Your task to perform on an android device: Open location settings Image 0: 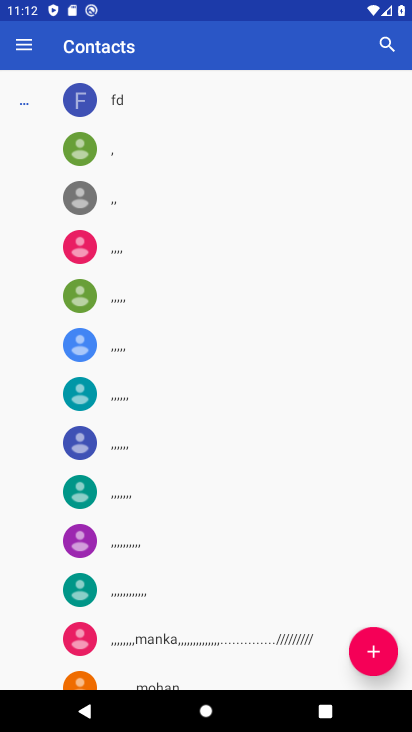
Step 0: press home button
Your task to perform on an android device: Open location settings Image 1: 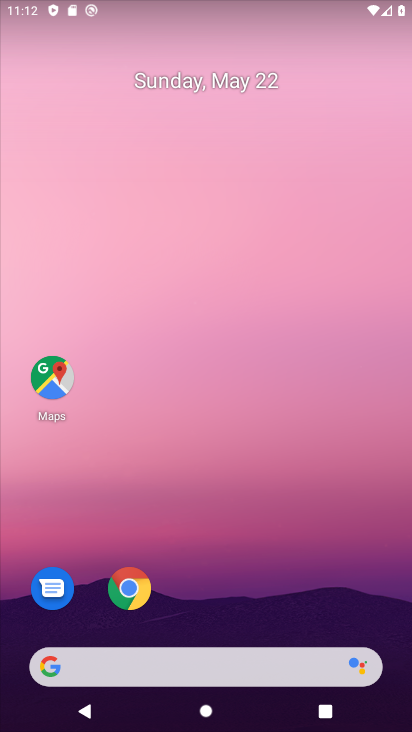
Step 1: drag from (210, 623) to (411, 25)
Your task to perform on an android device: Open location settings Image 2: 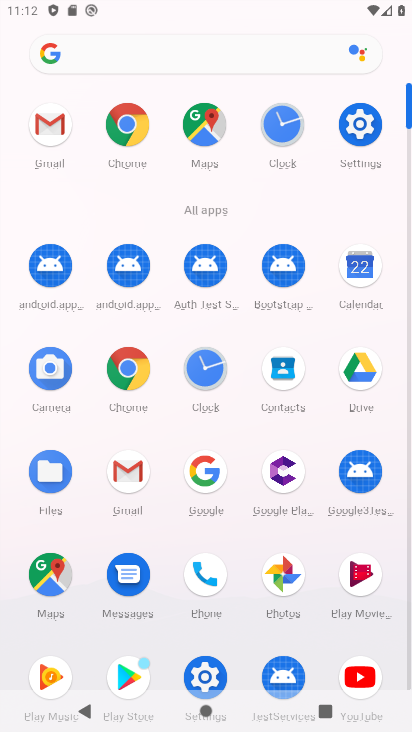
Step 2: click (339, 137)
Your task to perform on an android device: Open location settings Image 3: 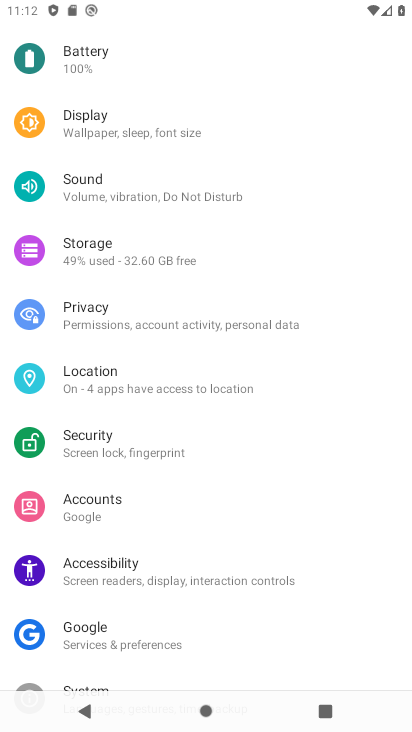
Step 3: click (127, 401)
Your task to perform on an android device: Open location settings Image 4: 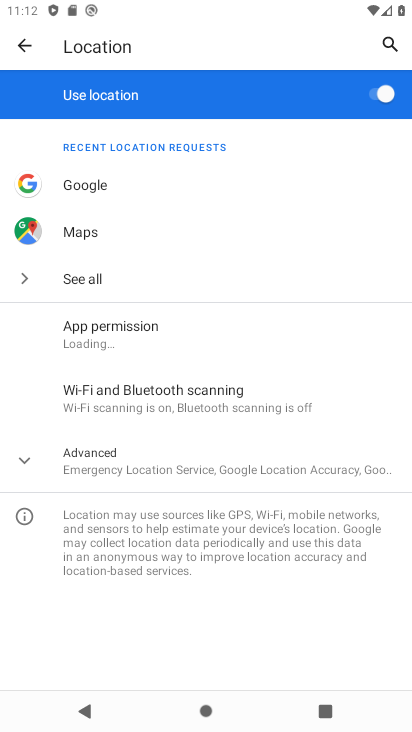
Step 4: click (163, 458)
Your task to perform on an android device: Open location settings Image 5: 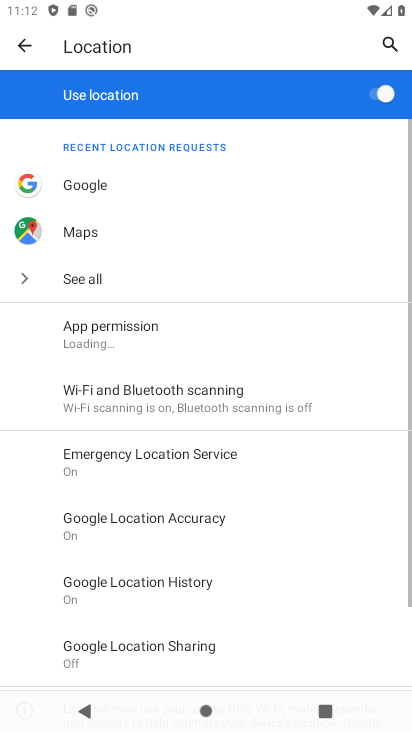
Step 5: task complete